Your task to perform on an android device: Find coffee shops on Maps Image 0: 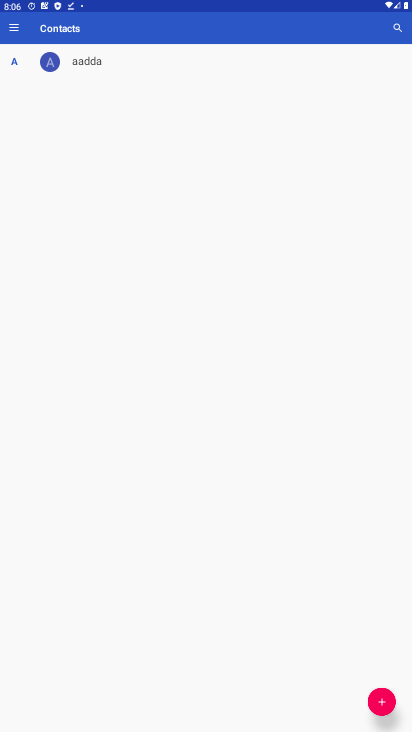
Step 0: press home button
Your task to perform on an android device: Find coffee shops on Maps Image 1: 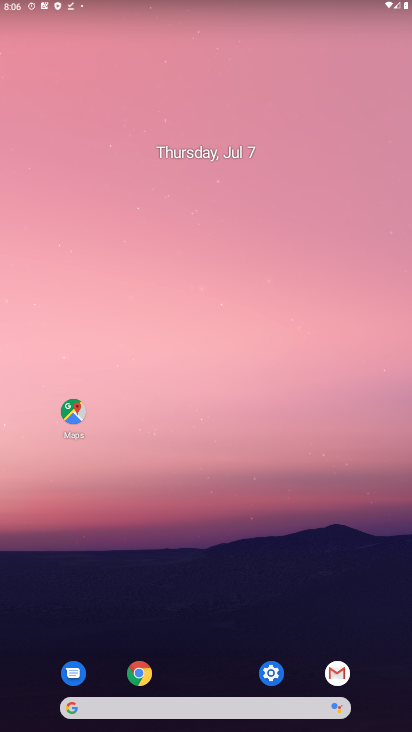
Step 1: click (62, 422)
Your task to perform on an android device: Find coffee shops on Maps Image 2: 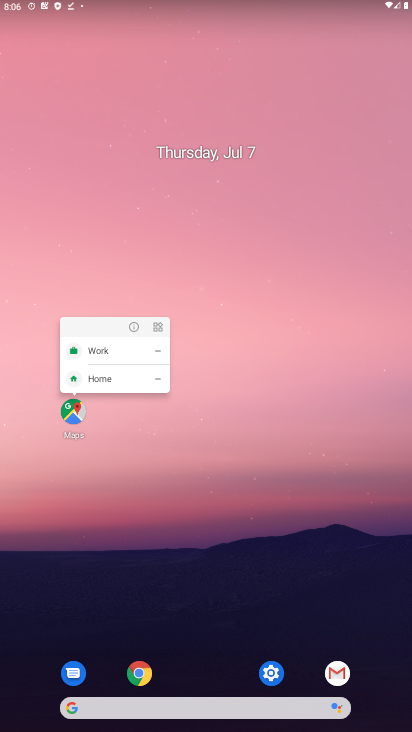
Step 2: click (76, 422)
Your task to perform on an android device: Find coffee shops on Maps Image 3: 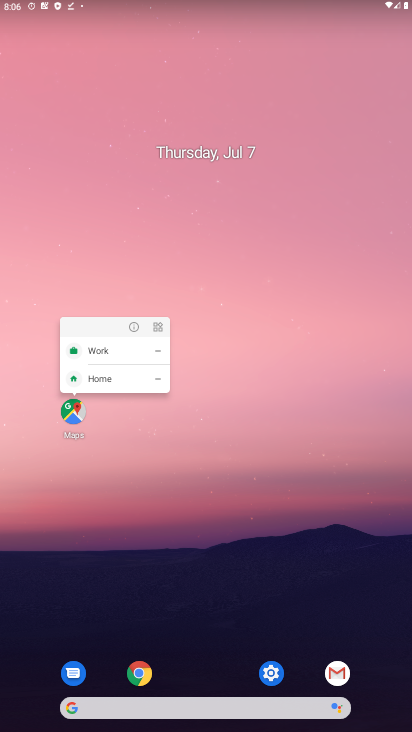
Step 3: click (74, 422)
Your task to perform on an android device: Find coffee shops on Maps Image 4: 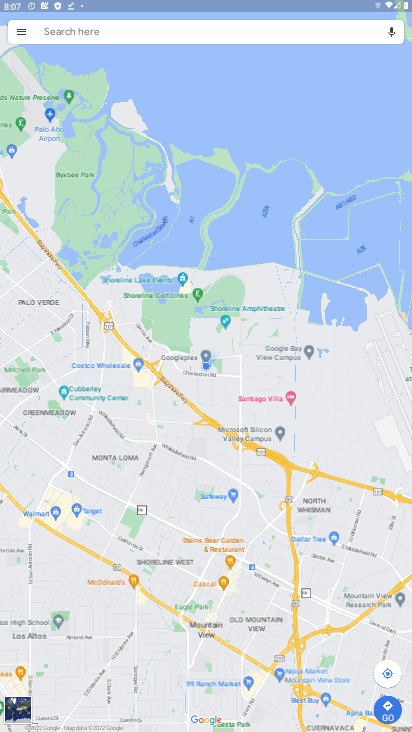
Step 4: click (87, 26)
Your task to perform on an android device: Find coffee shops on Maps Image 5: 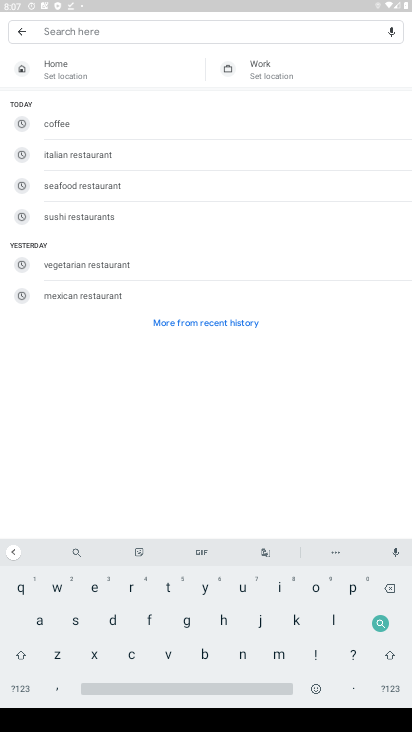
Step 5: click (131, 645)
Your task to perform on an android device: Find coffee shops on Maps Image 6: 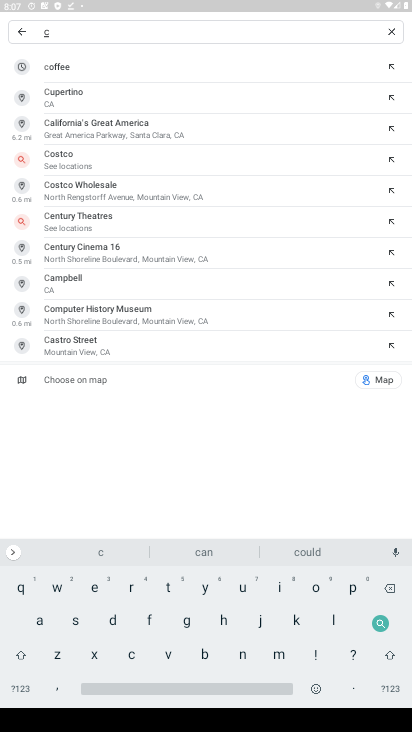
Step 6: click (98, 68)
Your task to perform on an android device: Find coffee shops on Maps Image 7: 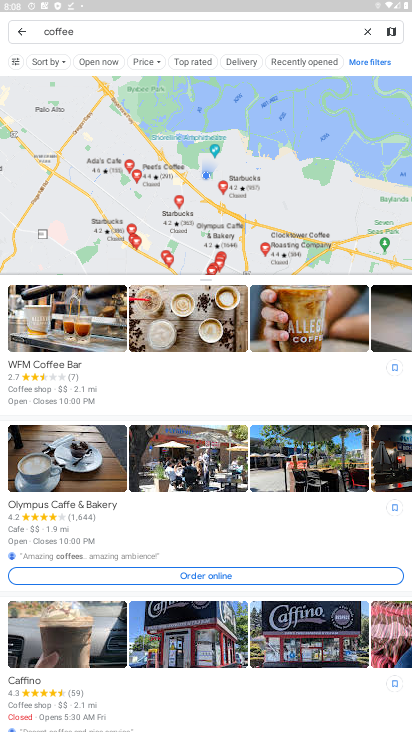
Step 7: task complete